Your task to perform on an android device: set the stopwatch Image 0: 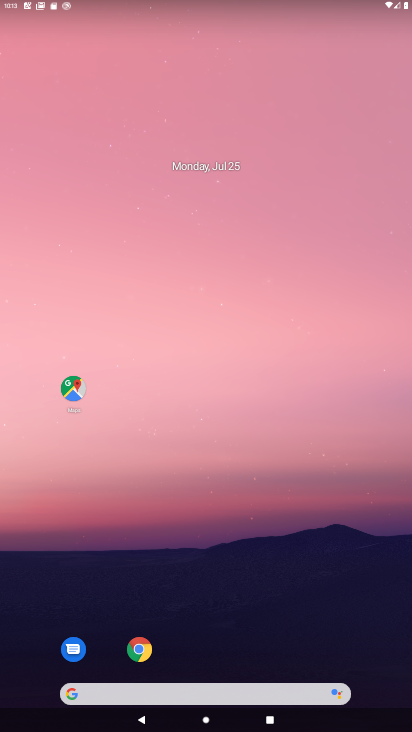
Step 0: drag from (366, 659) to (332, 235)
Your task to perform on an android device: set the stopwatch Image 1: 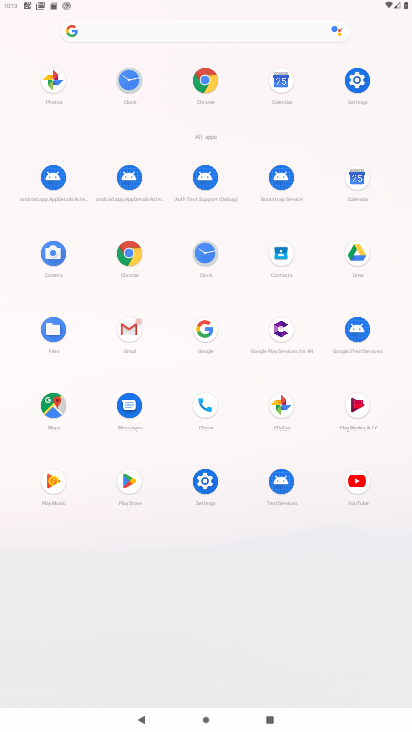
Step 1: click (204, 251)
Your task to perform on an android device: set the stopwatch Image 2: 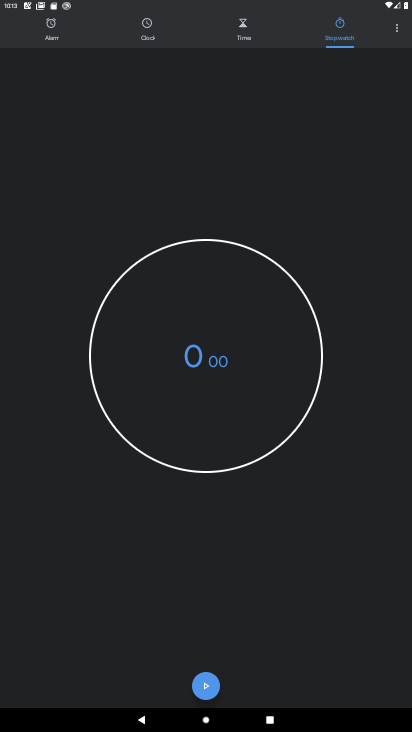
Step 2: task complete